Your task to perform on an android device: change keyboard looks Image 0: 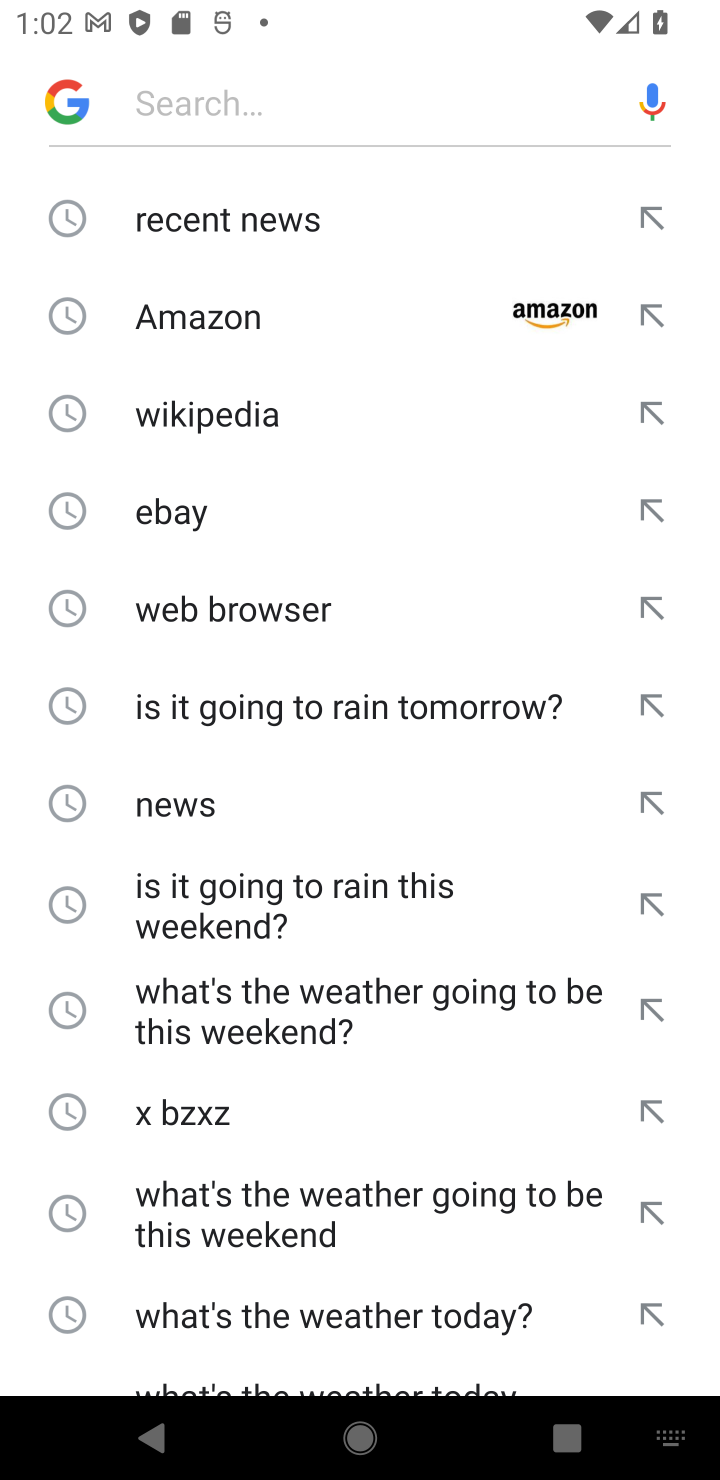
Step 0: press home button
Your task to perform on an android device: change keyboard looks Image 1: 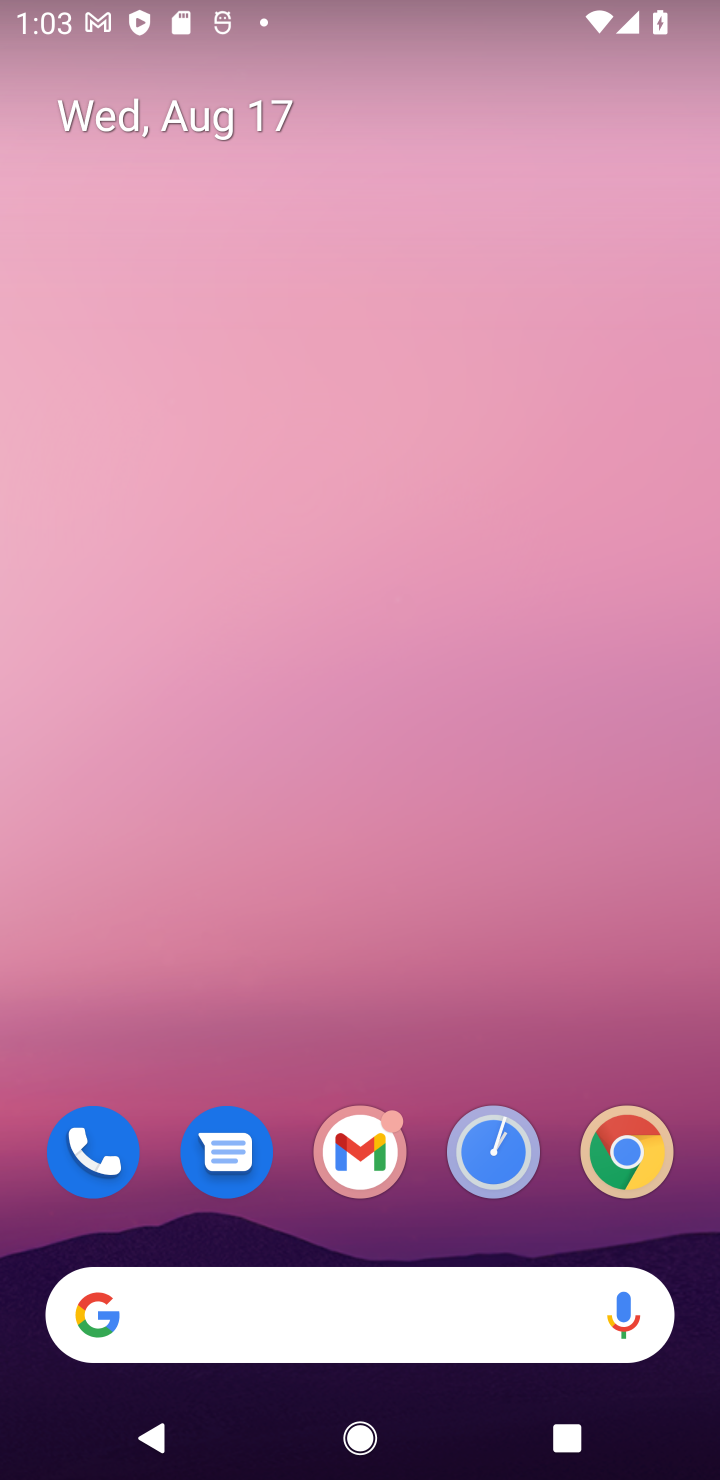
Step 1: drag from (670, 1216) to (20, 0)
Your task to perform on an android device: change keyboard looks Image 2: 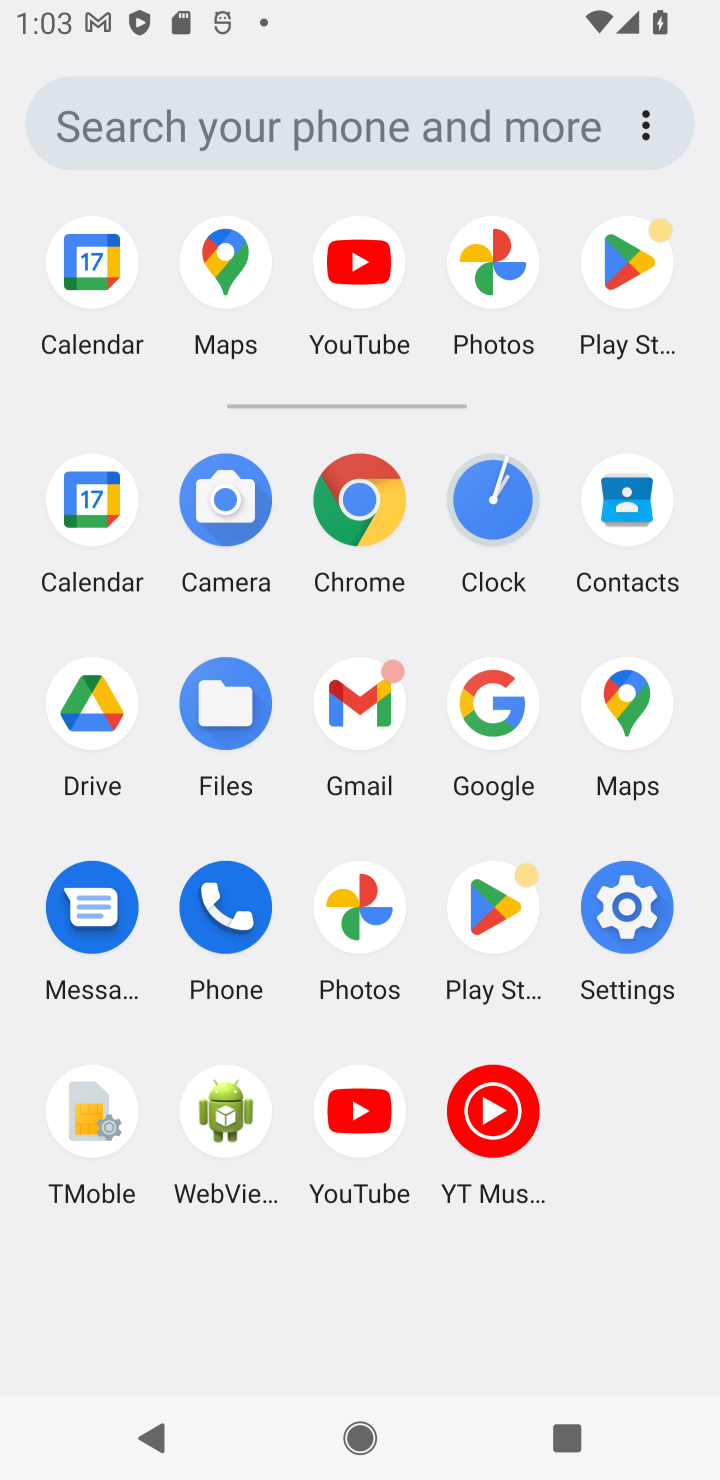
Step 2: click (633, 894)
Your task to perform on an android device: change keyboard looks Image 3: 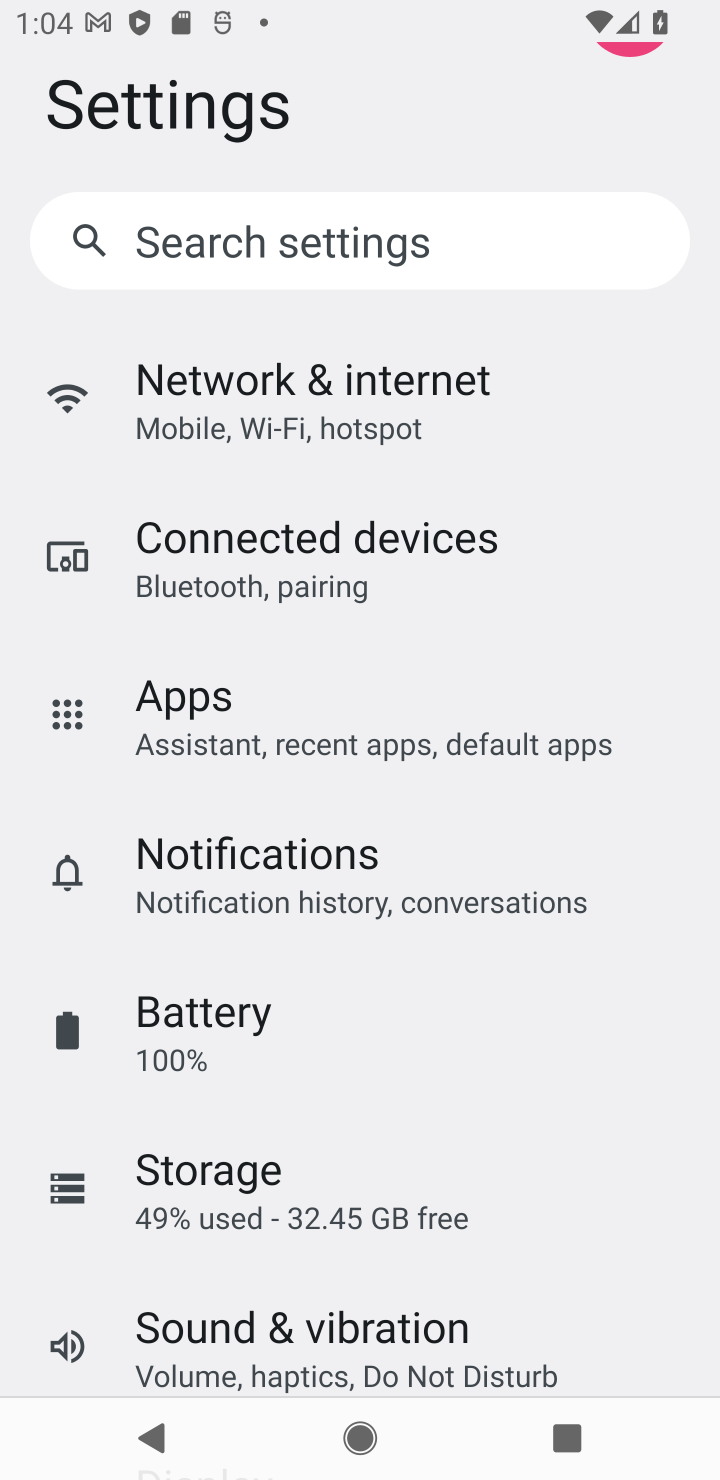
Step 3: drag from (354, 1286) to (349, 163)
Your task to perform on an android device: change keyboard looks Image 4: 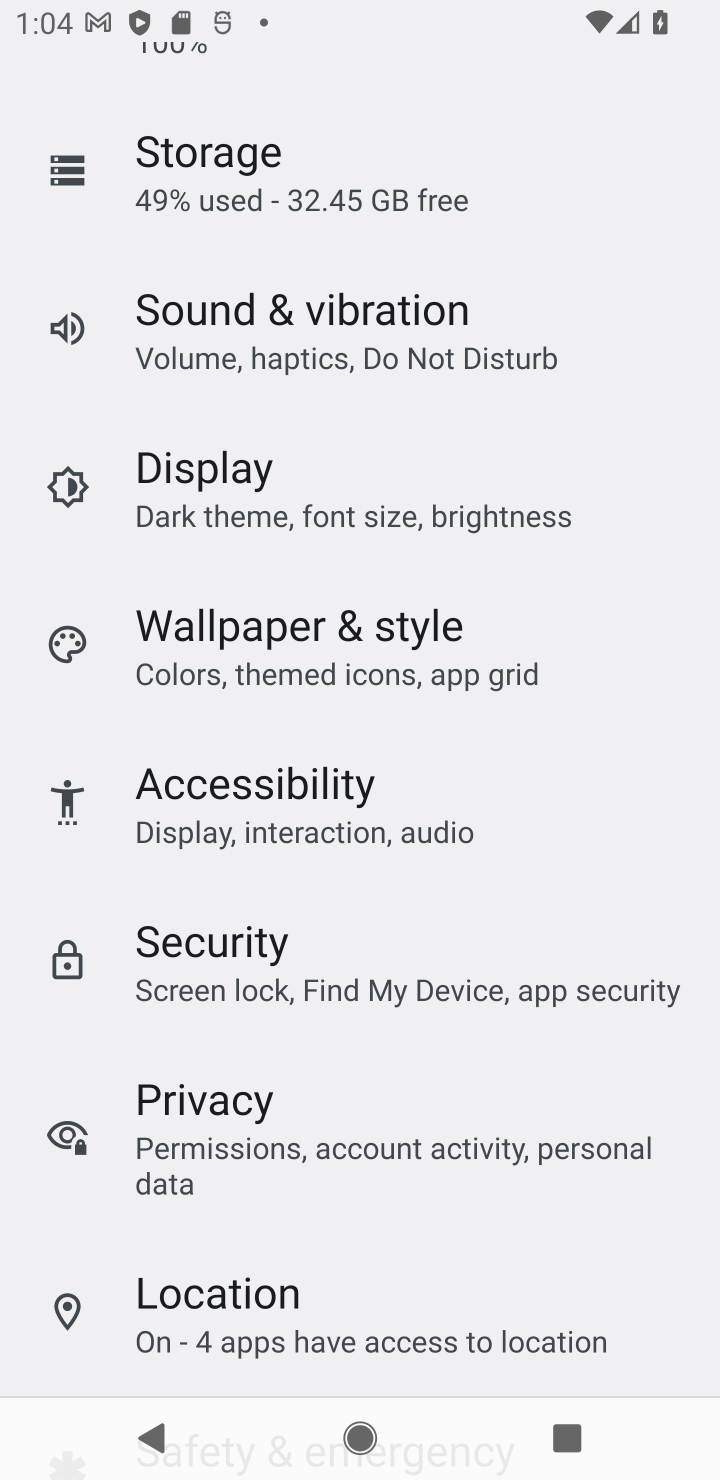
Step 4: drag from (371, 1264) to (453, 0)
Your task to perform on an android device: change keyboard looks Image 5: 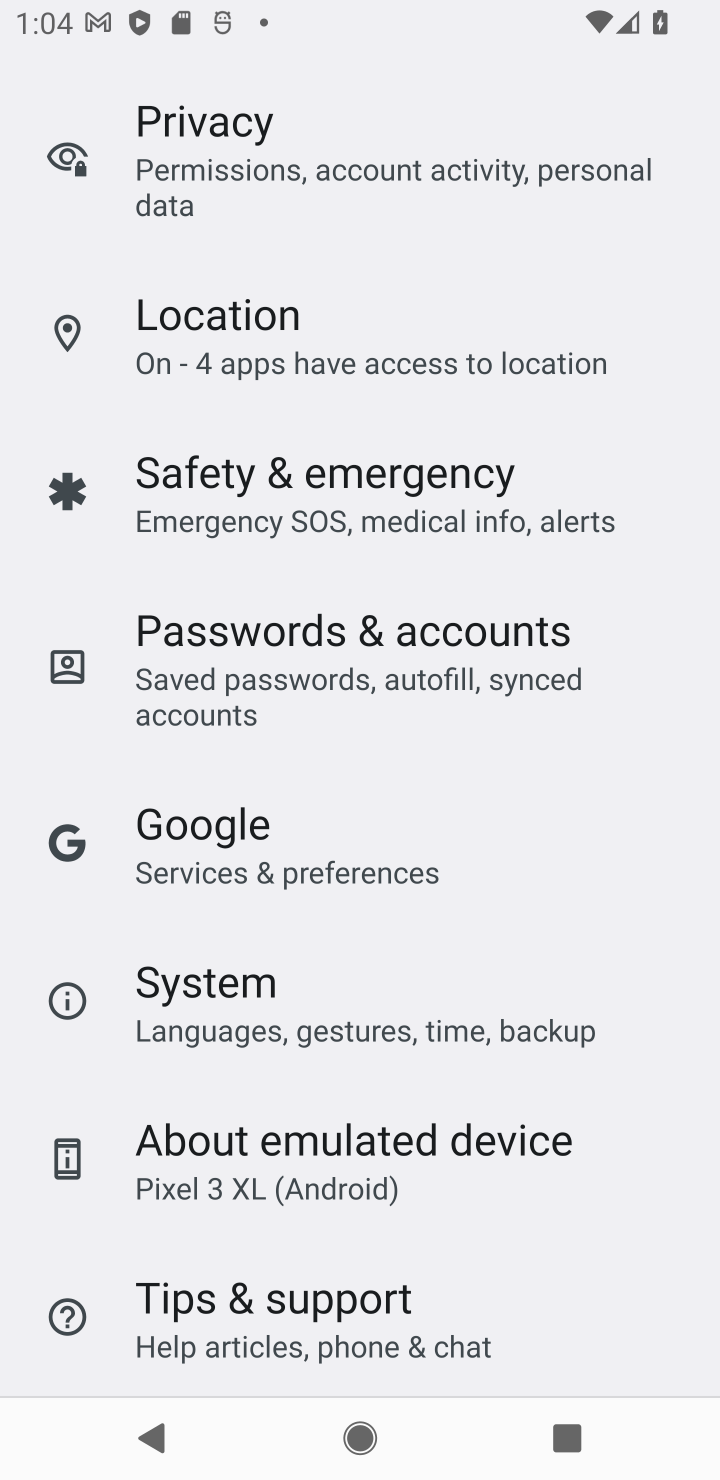
Step 5: click (346, 1044)
Your task to perform on an android device: change keyboard looks Image 6: 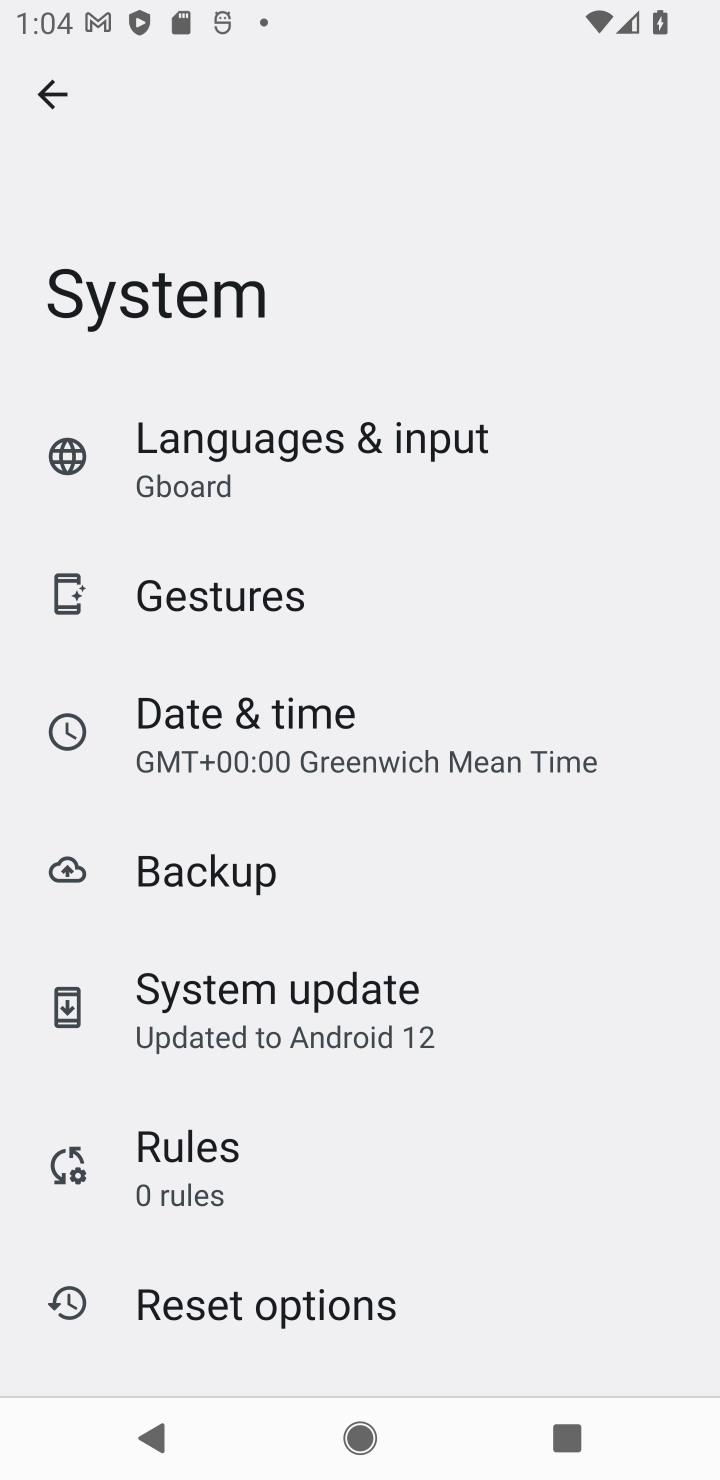
Step 6: click (256, 478)
Your task to perform on an android device: change keyboard looks Image 7: 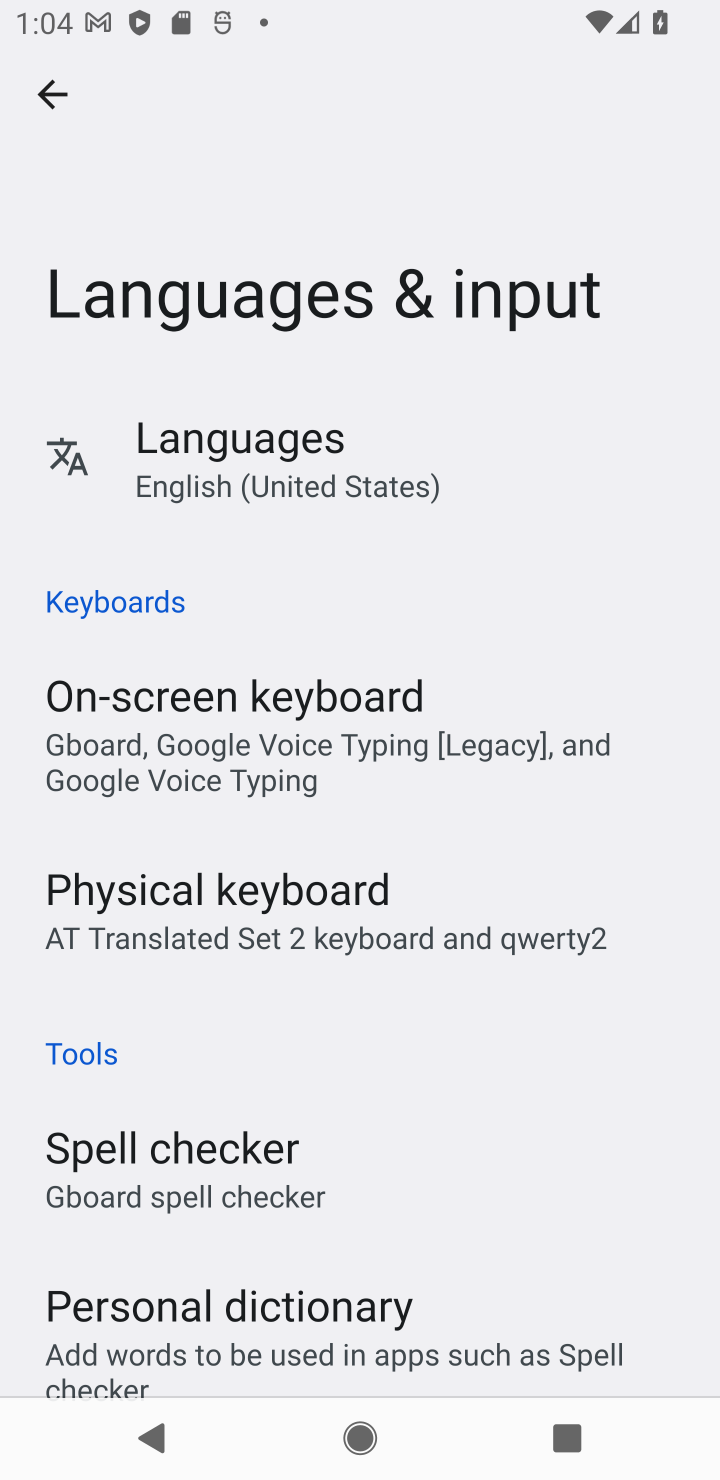
Step 7: click (190, 708)
Your task to perform on an android device: change keyboard looks Image 8: 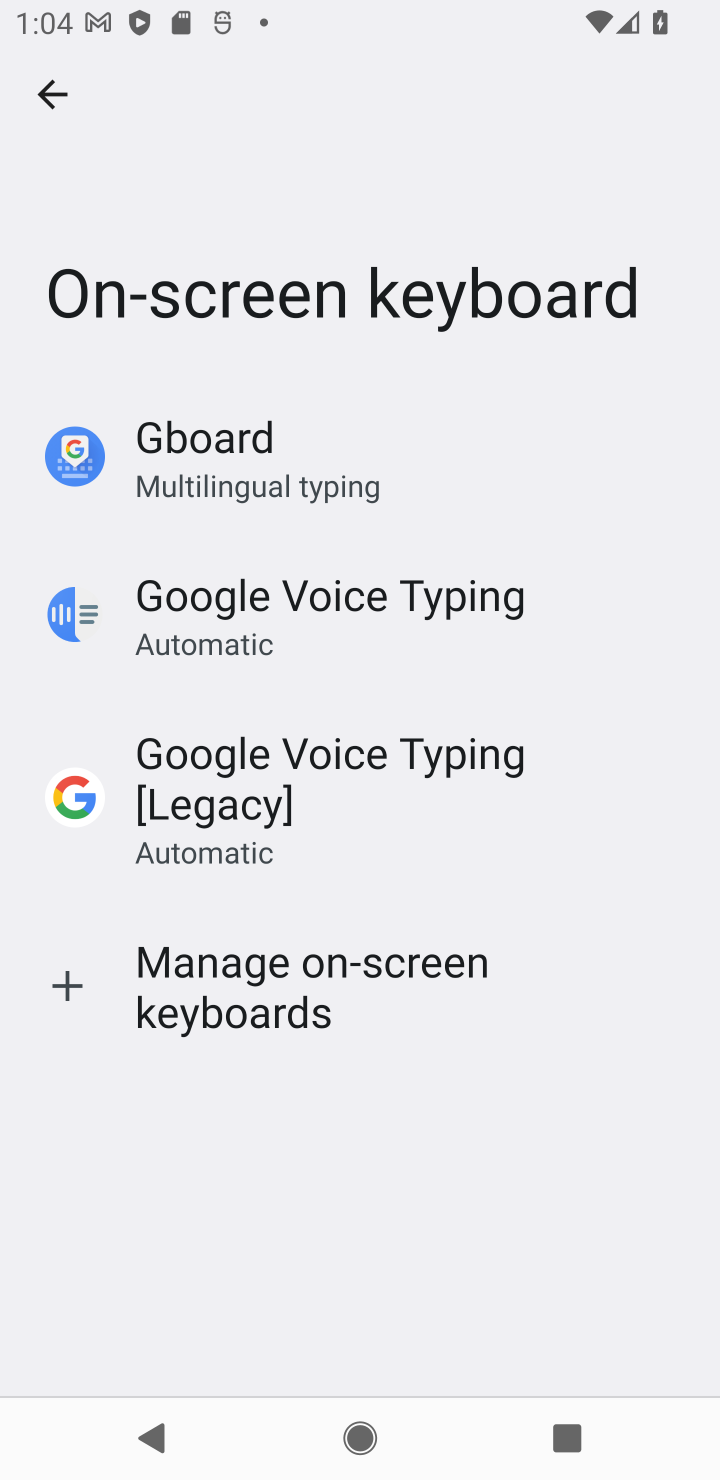
Step 8: task complete